Your task to perform on an android device: refresh tabs in the chrome app Image 0: 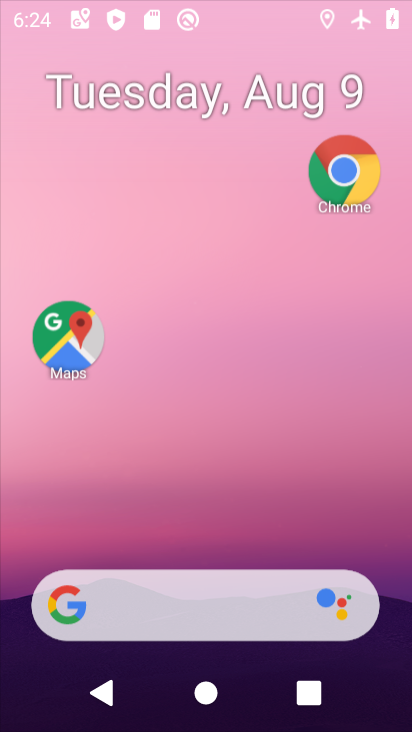
Step 0: drag from (199, 463) to (268, 202)
Your task to perform on an android device: refresh tabs in the chrome app Image 1: 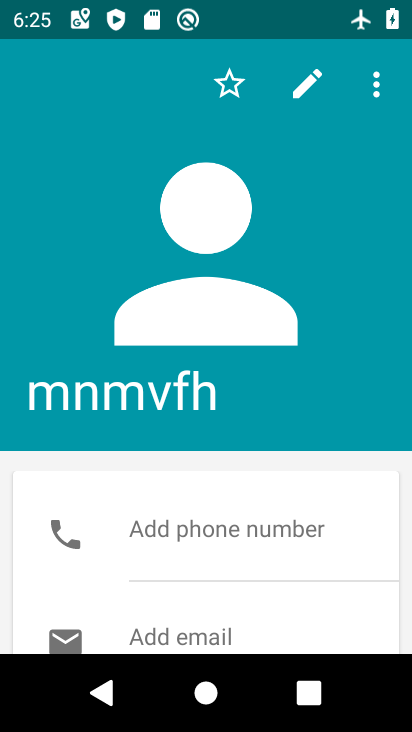
Step 1: drag from (192, 577) to (268, 261)
Your task to perform on an android device: refresh tabs in the chrome app Image 2: 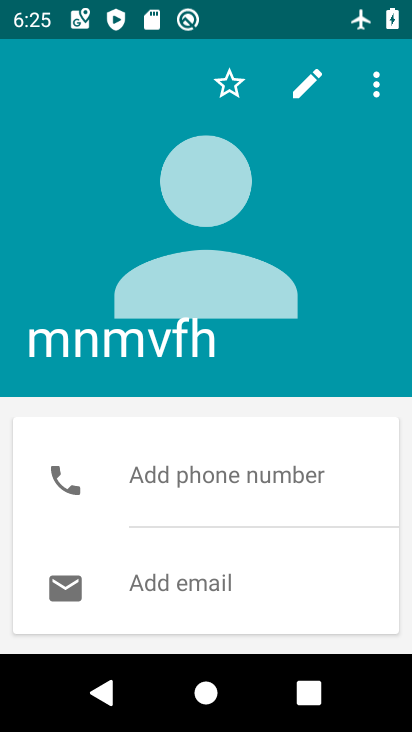
Step 2: drag from (244, 590) to (273, 346)
Your task to perform on an android device: refresh tabs in the chrome app Image 3: 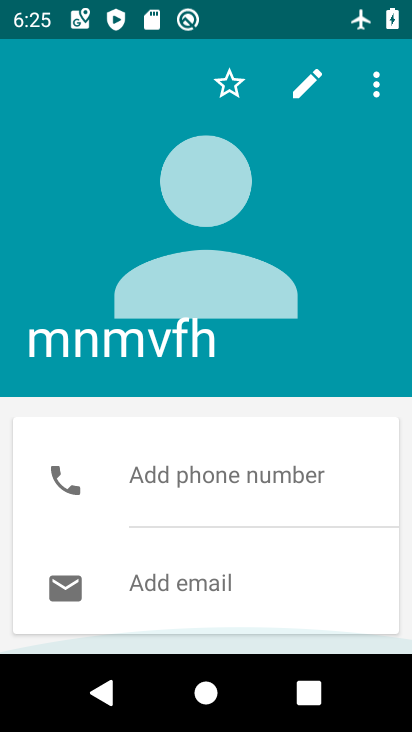
Step 3: drag from (266, 229) to (223, 726)
Your task to perform on an android device: refresh tabs in the chrome app Image 4: 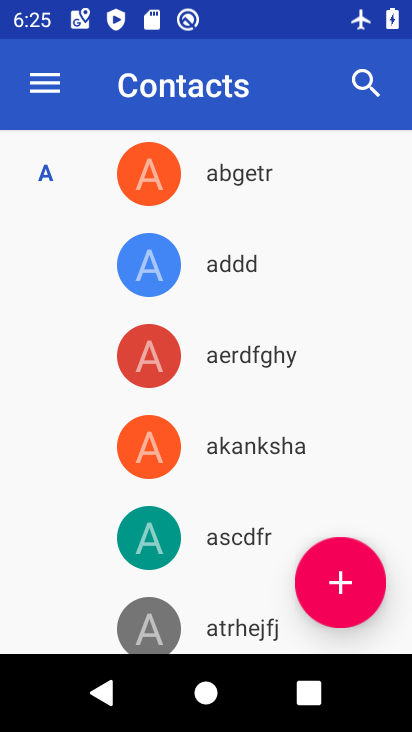
Step 4: press home button
Your task to perform on an android device: refresh tabs in the chrome app Image 5: 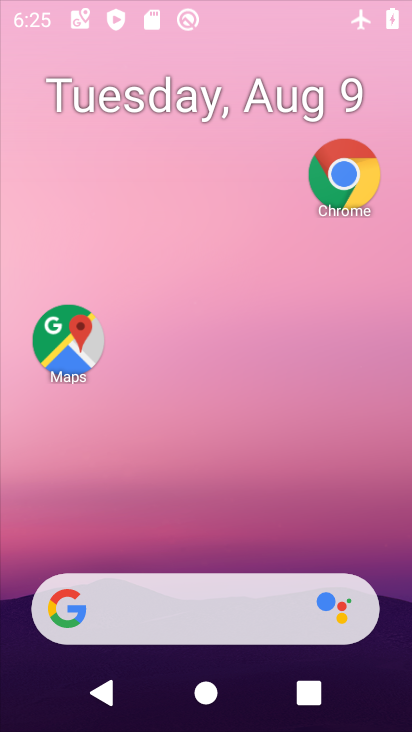
Step 5: drag from (192, 576) to (258, 323)
Your task to perform on an android device: refresh tabs in the chrome app Image 6: 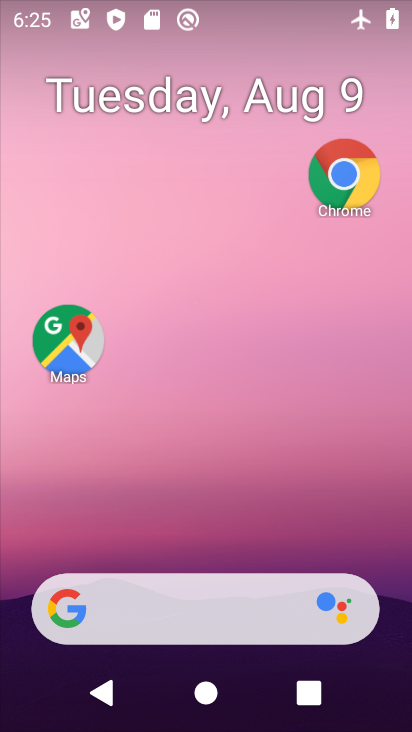
Step 6: click (350, 163)
Your task to perform on an android device: refresh tabs in the chrome app Image 7: 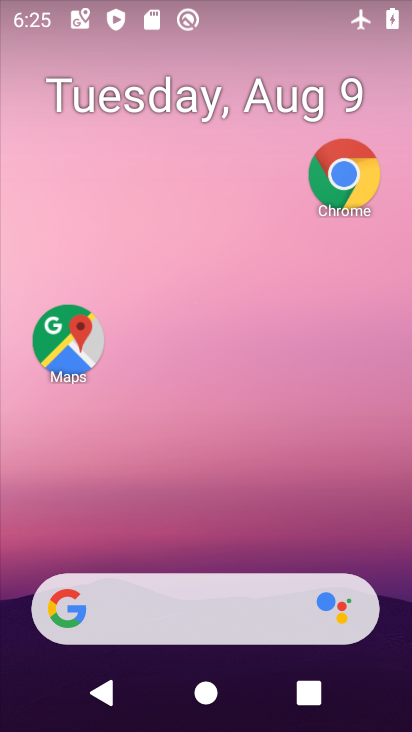
Step 7: click (350, 163)
Your task to perform on an android device: refresh tabs in the chrome app Image 8: 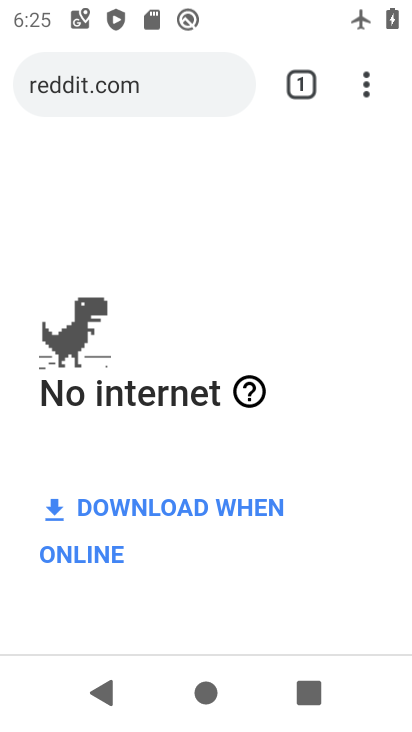
Step 8: click (368, 93)
Your task to perform on an android device: refresh tabs in the chrome app Image 9: 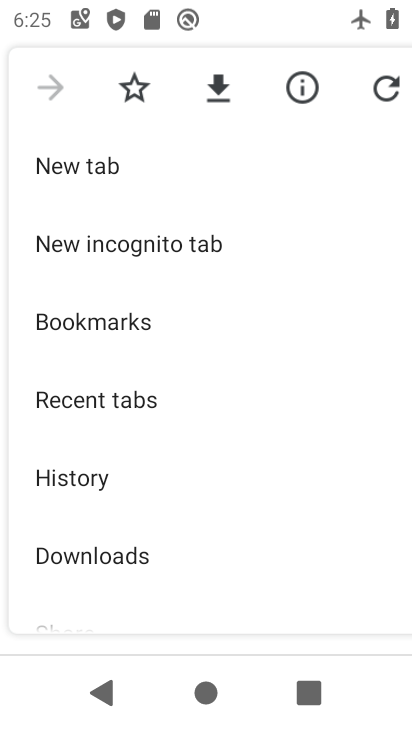
Step 9: click (368, 101)
Your task to perform on an android device: refresh tabs in the chrome app Image 10: 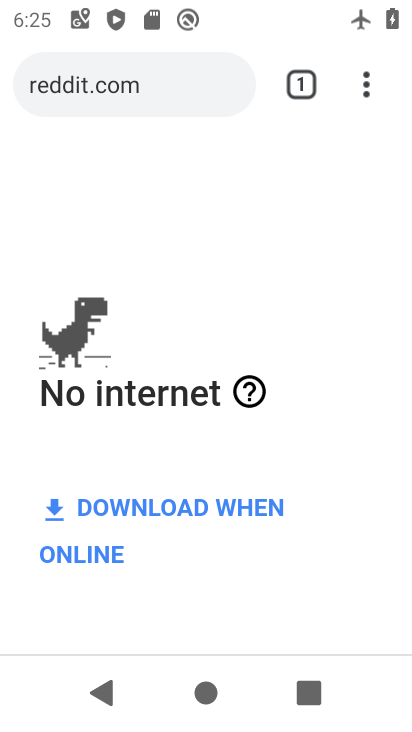
Step 10: task complete